Your task to perform on an android device: Do I have any events this weekend? Image 0: 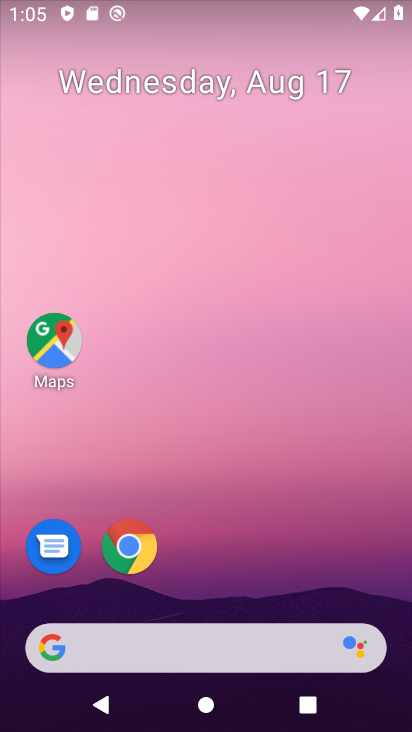
Step 0: drag from (216, 557) to (187, 106)
Your task to perform on an android device: Do I have any events this weekend? Image 1: 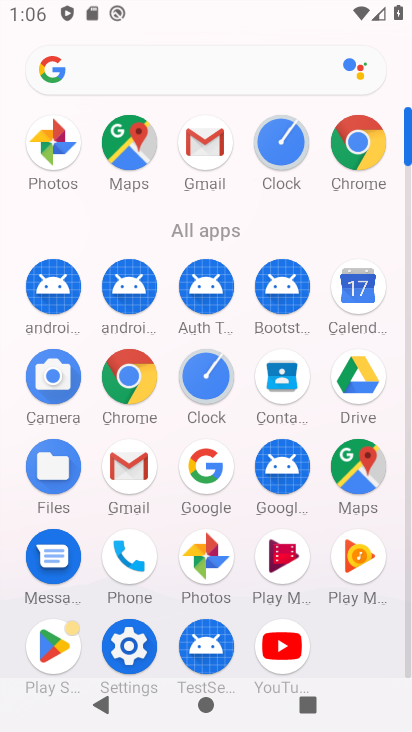
Step 1: click (378, 300)
Your task to perform on an android device: Do I have any events this weekend? Image 2: 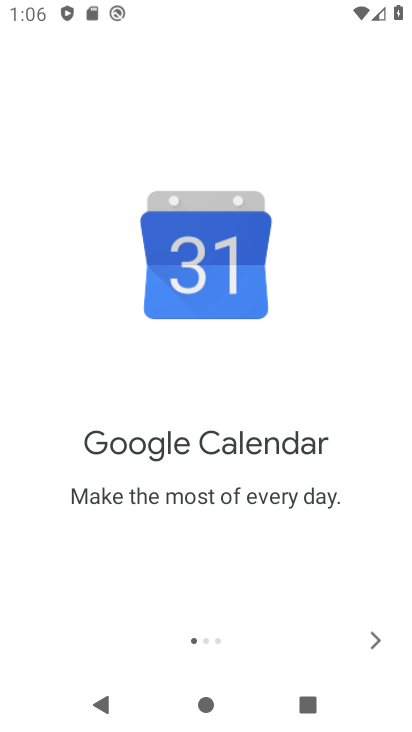
Step 2: click (392, 638)
Your task to perform on an android device: Do I have any events this weekend? Image 3: 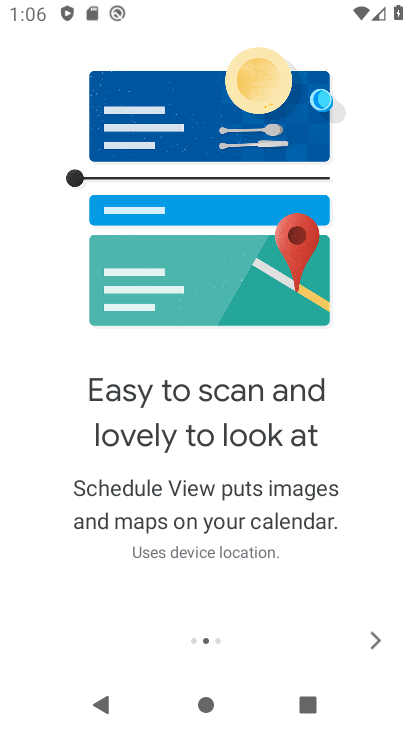
Step 3: click (378, 643)
Your task to perform on an android device: Do I have any events this weekend? Image 4: 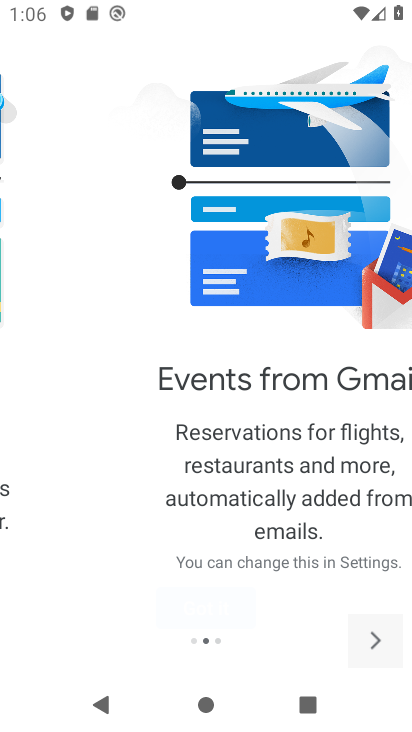
Step 4: click (378, 643)
Your task to perform on an android device: Do I have any events this weekend? Image 5: 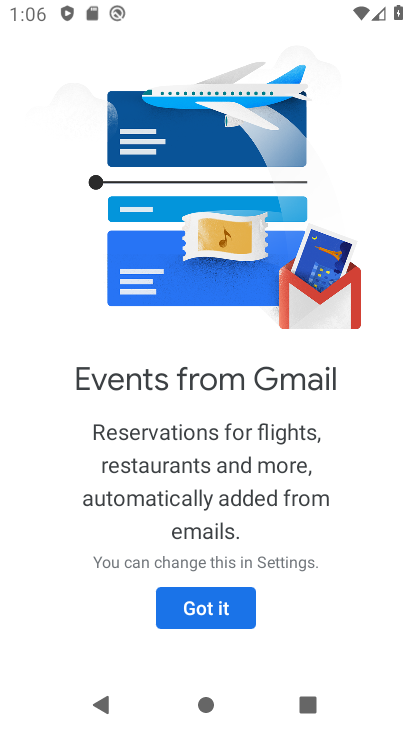
Step 5: click (217, 613)
Your task to perform on an android device: Do I have any events this weekend? Image 6: 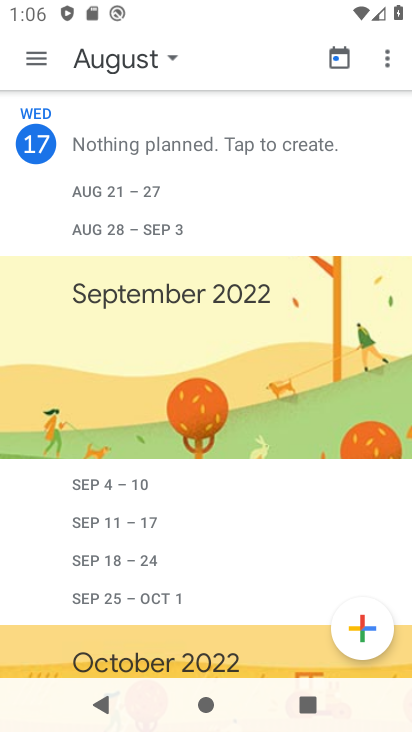
Step 6: click (157, 55)
Your task to perform on an android device: Do I have any events this weekend? Image 7: 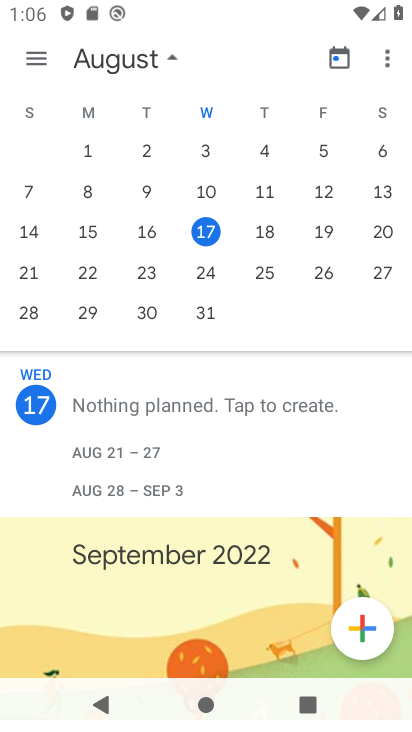
Step 7: click (374, 235)
Your task to perform on an android device: Do I have any events this weekend? Image 8: 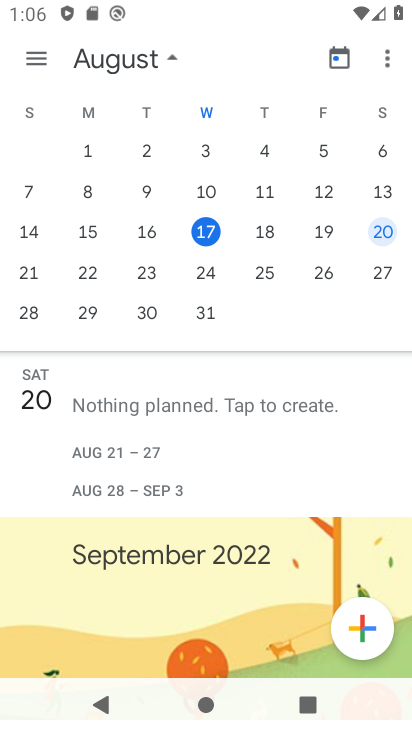
Step 8: task complete